Your task to perform on an android device: turn off priority inbox in the gmail app Image 0: 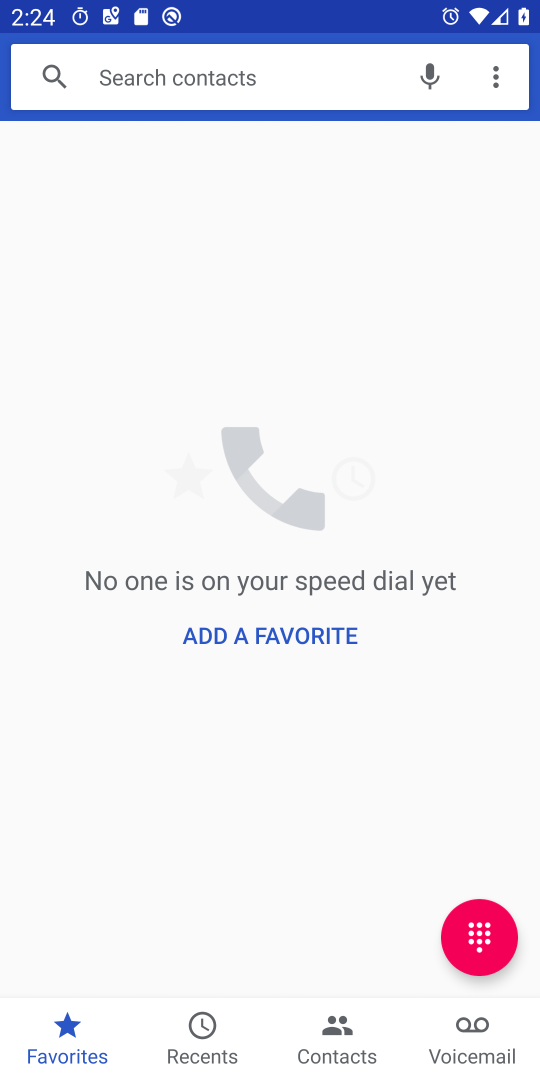
Step 0: press home button
Your task to perform on an android device: turn off priority inbox in the gmail app Image 1: 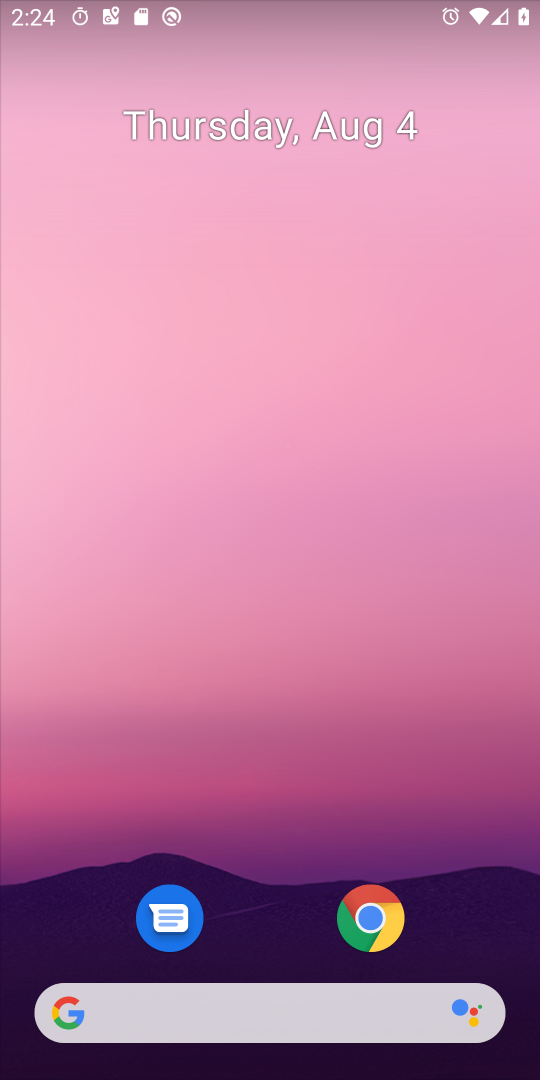
Step 1: drag from (242, 922) to (291, 304)
Your task to perform on an android device: turn off priority inbox in the gmail app Image 2: 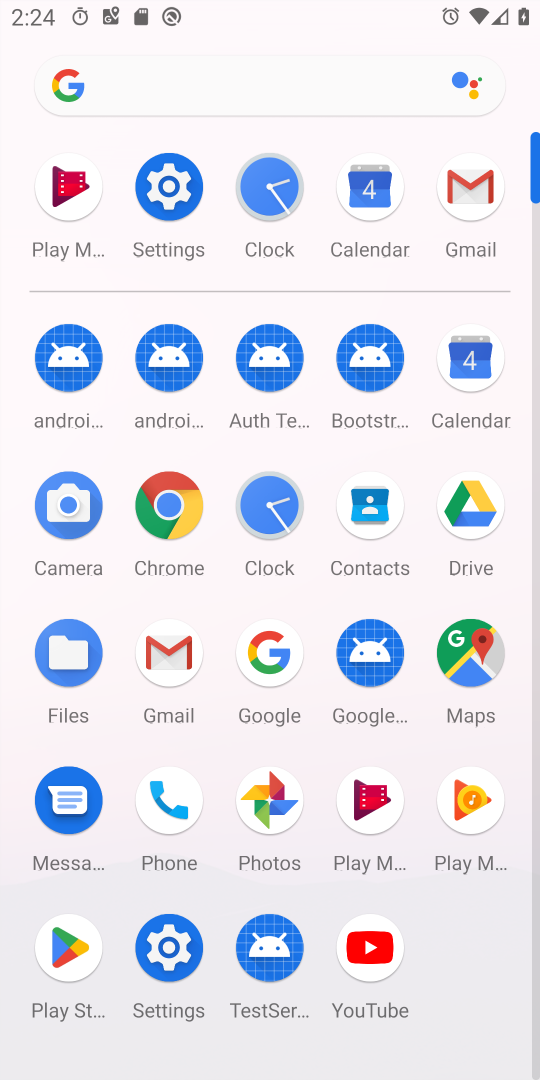
Step 2: click (460, 200)
Your task to perform on an android device: turn off priority inbox in the gmail app Image 3: 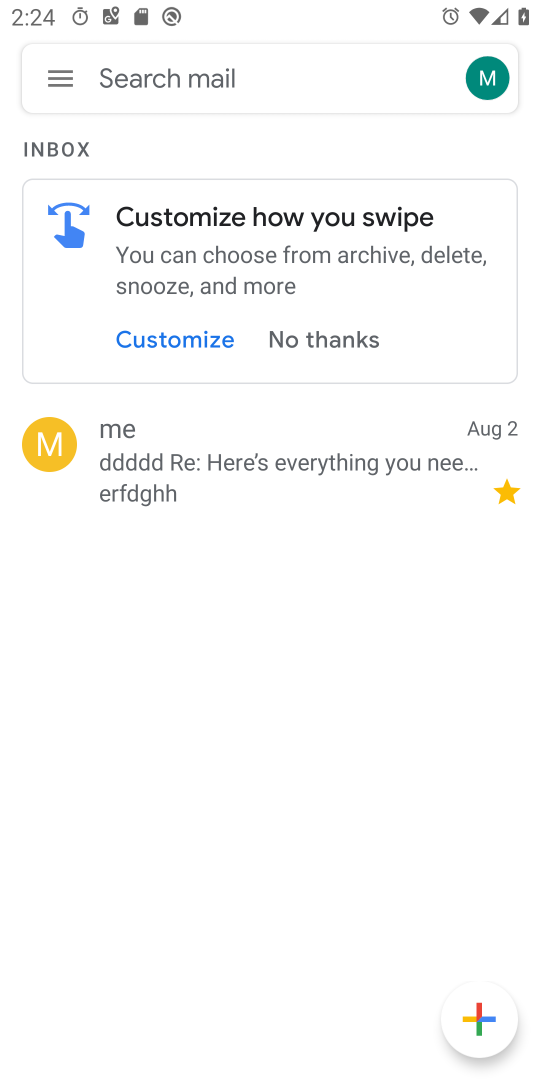
Step 3: click (80, 84)
Your task to perform on an android device: turn off priority inbox in the gmail app Image 4: 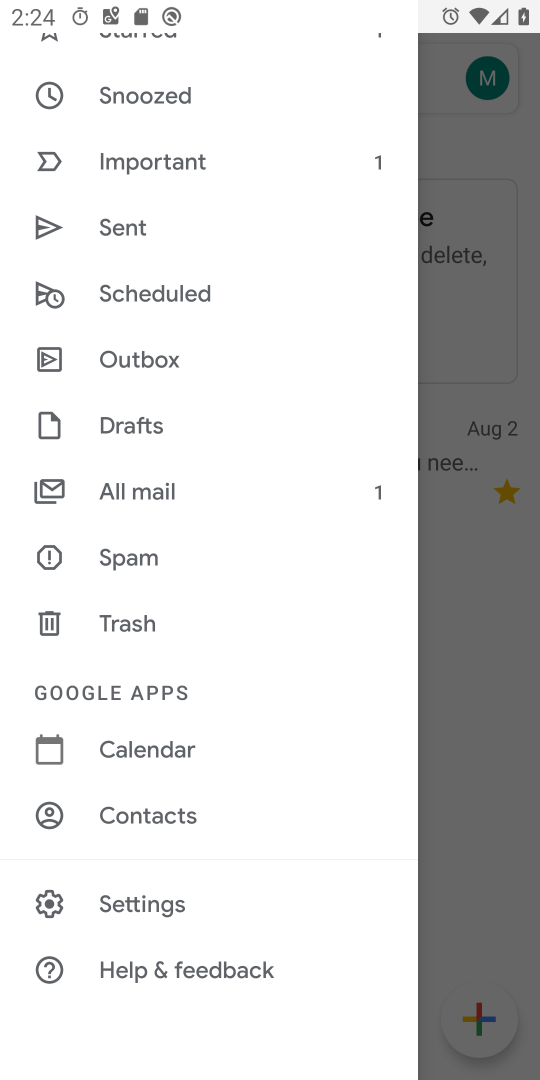
Step 4: click (184, 886)
Your task to perform on an android device: turn off priority inbox in the gmail app Image 5: 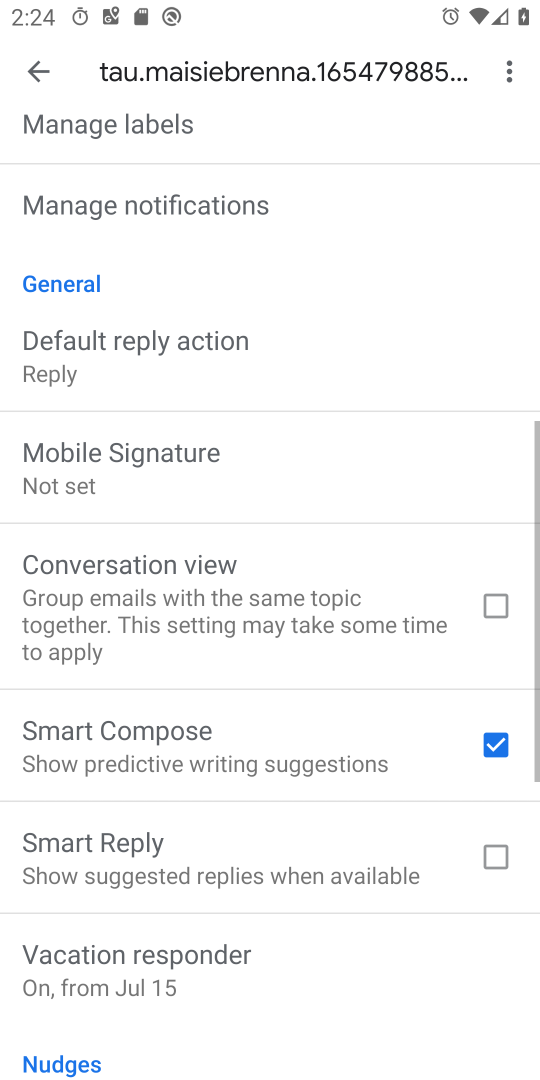
Step 5: drag from (220, 230) to (263, 754)
Your task to perform on an android device: turn off priority inbox in the gmail app Image 6: 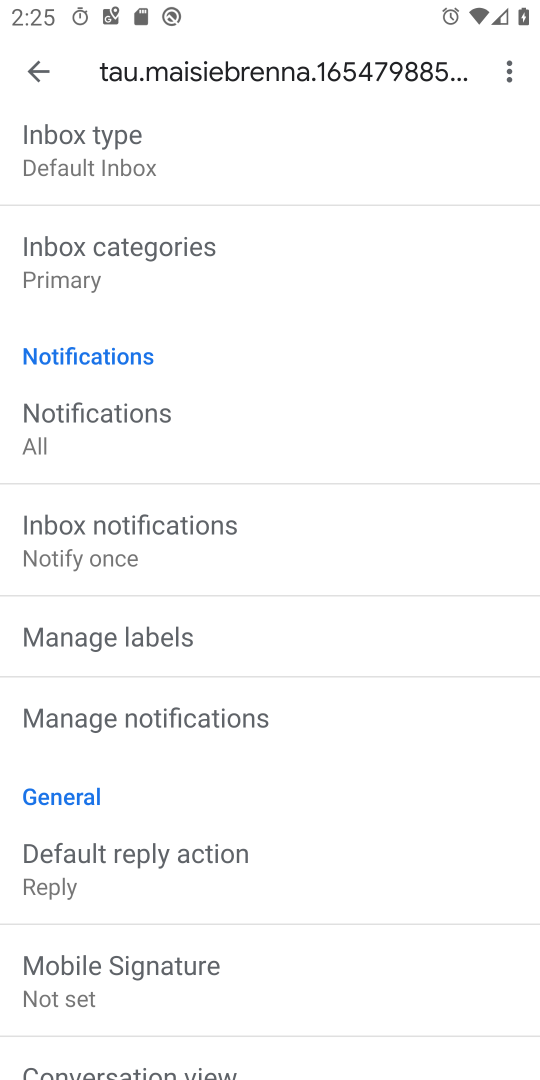
Step 6: click (222, 169)
Your task to perform on an android device: turn off priority inbox in the gmail app Image 7: 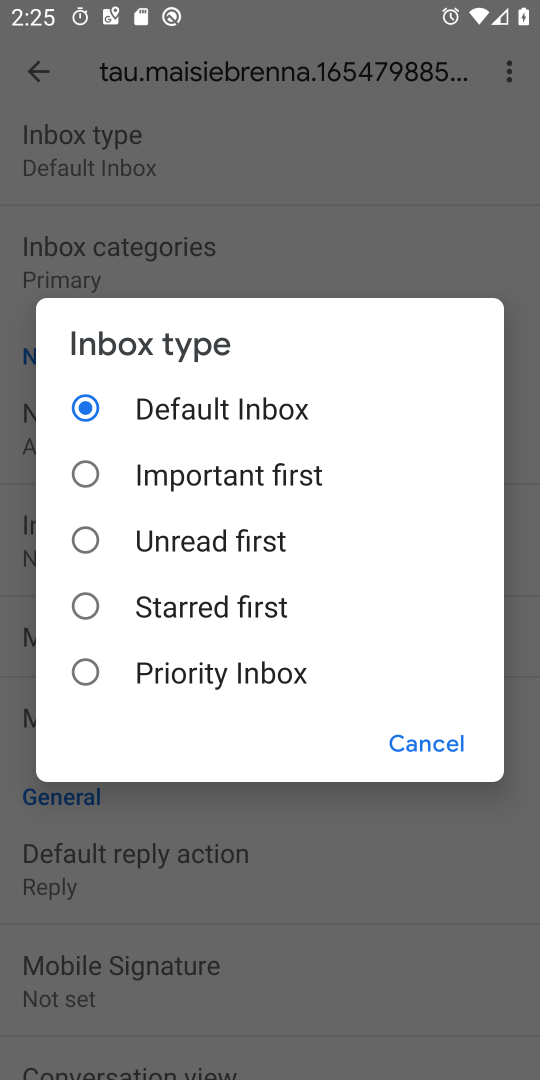
Step 7: task complete